Your task to perform on an android device: turn on data saver in the chrome app Image 0: 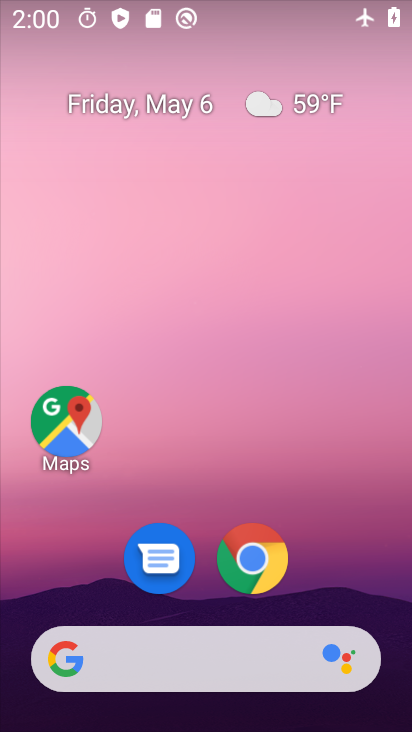
Step 0: click (259, 555)
Your task to perform on an android device: turn on data saver in the chrome app Image 1: 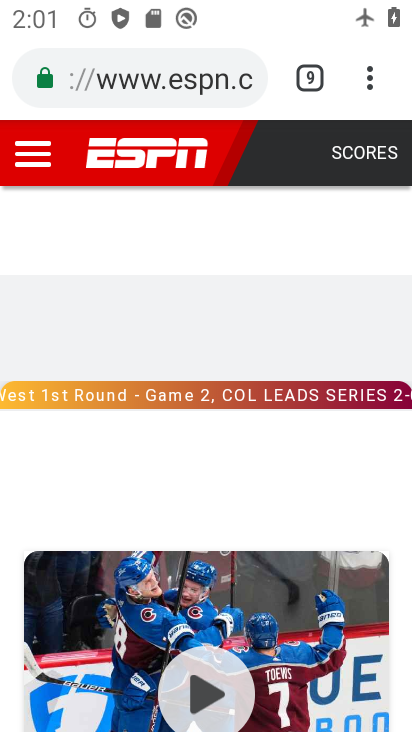
Step 1: drag from (373, 77) to (118, 619)
Your task to perform on an android device: turn on data saver in the chrome app Image 2: 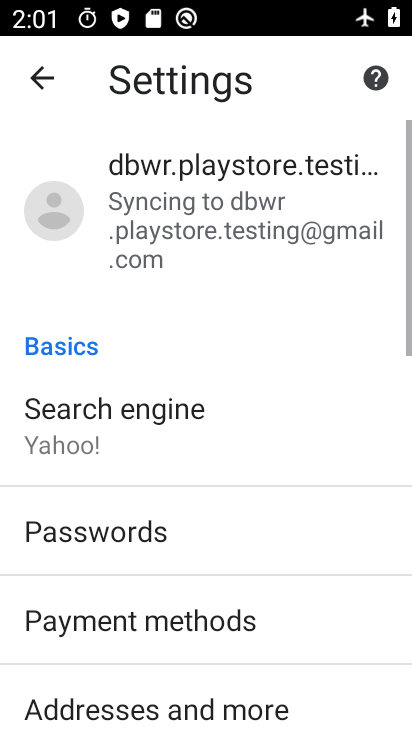
Step 2: drag from (141, 665) to (122, 317)
Your task to perform on an android device: turn on data saver in the chrome app Image 3: 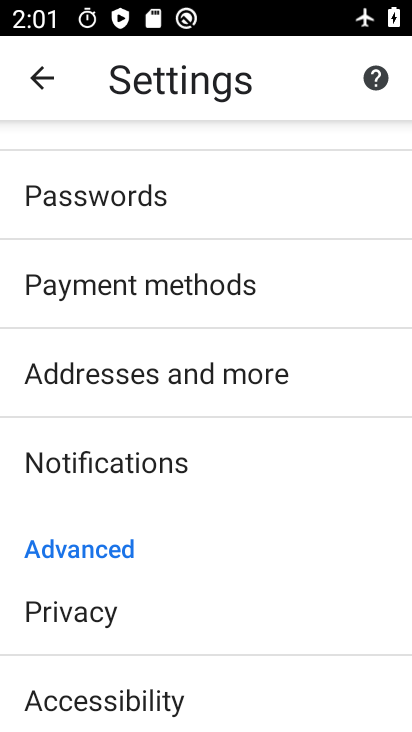
Step 3: drag from (138, 679) to (113, 336)
Your task to perform on an android device: turn on data saver in the chrome app Image 4: 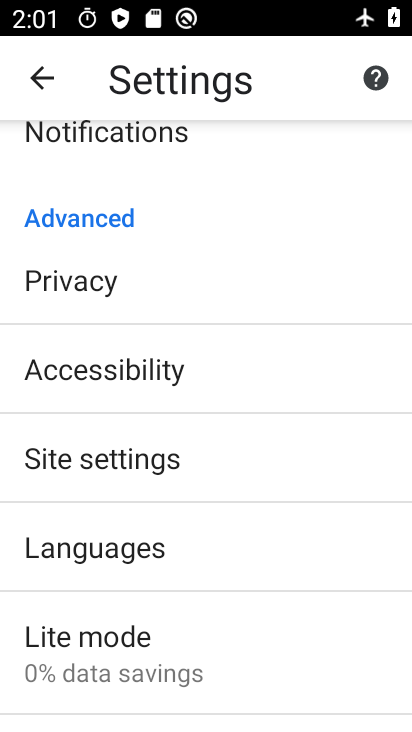
Step 4: click (148, 644)
Your task to perform on an android device: turn on data saver in the chrome app Image 5: 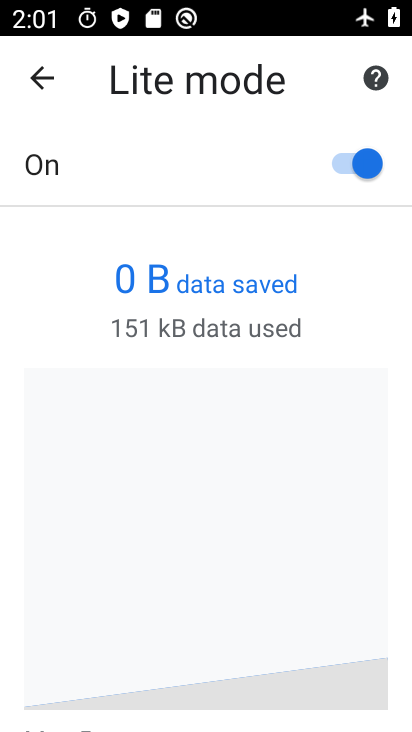
Step 5: task complete